Your task to perform on an android device: Open Google Chrome and open the bookmarks view Image 0: 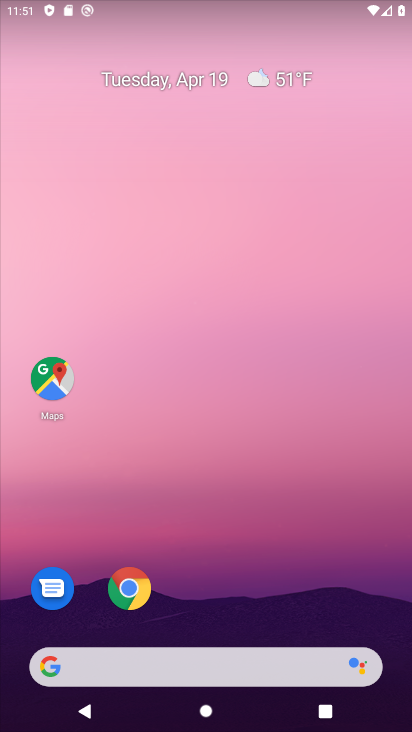
Step 0: click (124, 582)
Your task to perform on an android device: Open Google Chrome and open the bookmarks view Image 1: 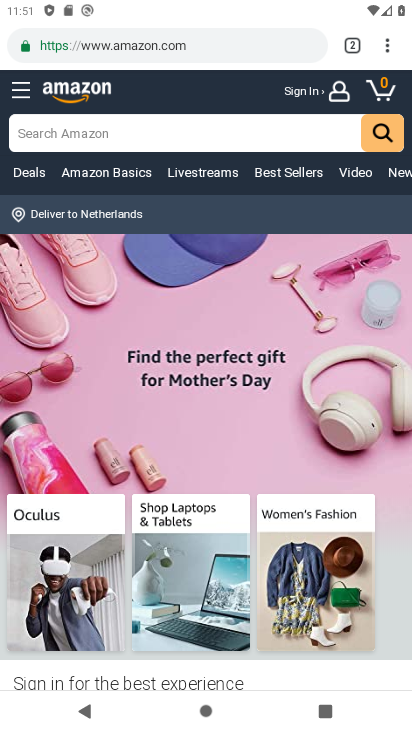
Step 1: click (387, 44)
Your task to perform on an android device: Open Google Chrome and open the bookmarks view Image 2: 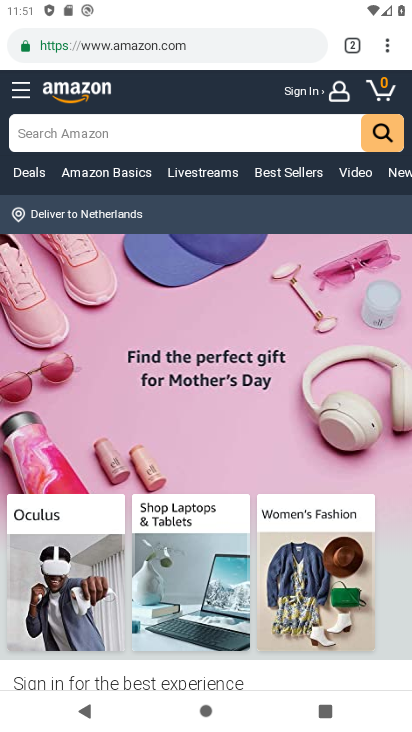
Step 2: click (387, 44)
Your task to perform on an android device: Open Google Chrome and open the bookmarks view Image 3: 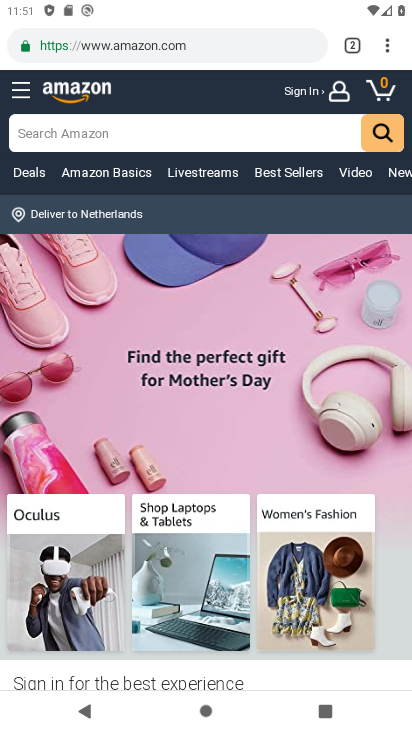
Step 3: click (387, 44)
Your task to perform on an android device: Open Google Chrome and open the bookmarks view Image 4: 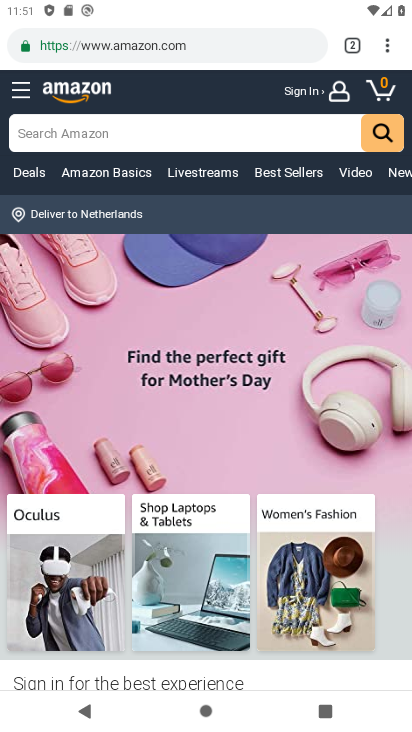
Step 4: click (388, 48)
Your task to perform on an android device: Open Google Chrome and open the bookmarks view Image 5: 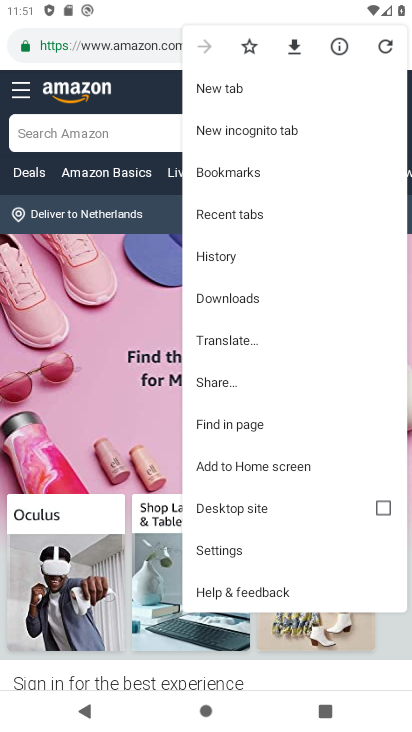
Step 5: click (269, 167)
Your task to perform on an android device: Open Google Chrome and open the bookmarks view Image 6: 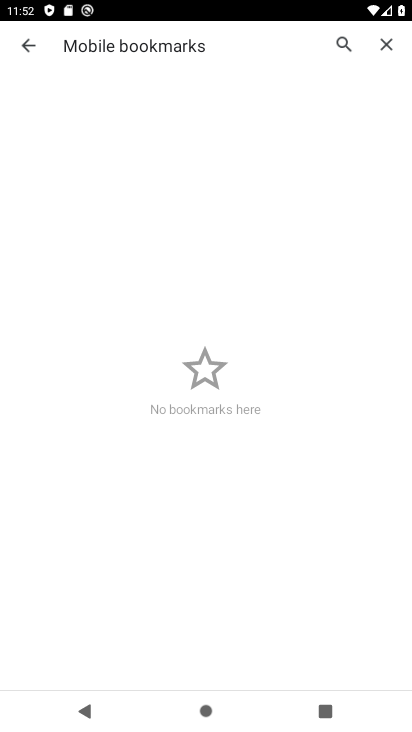
Step 6: task complete